Your task to perform on an android device: add a contact in the contacts app Image 0: 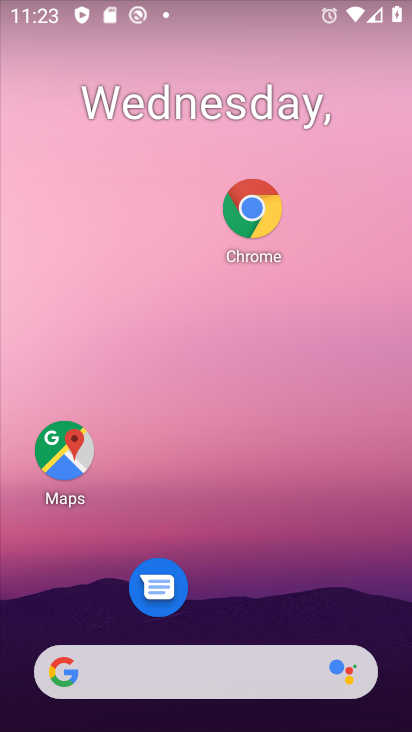
Step 0: drag from (231, 569) to (258, 27)
Your task to perform on an android device: add a contact in the contacts app Image 1: 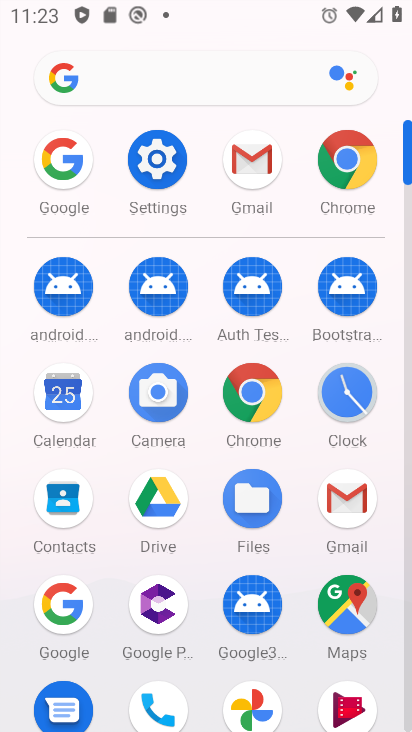
Step 1: click (57, 530)
Your task to perform on an android device: add a contact in the contacts app Image 2: 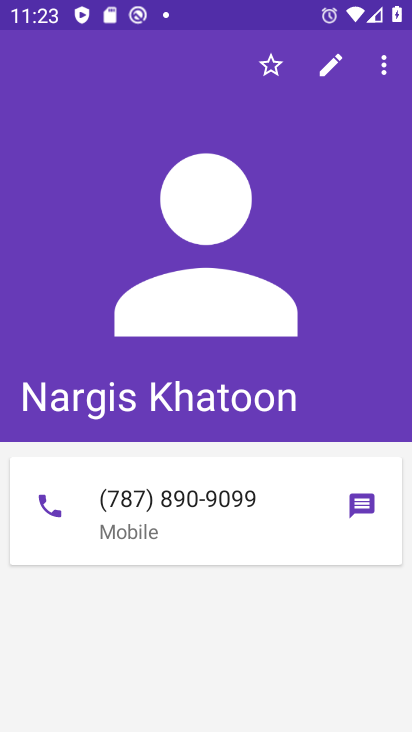
Step 2: press back button
Your task to perform on an android device: add a contact in the contacts app Image 3: 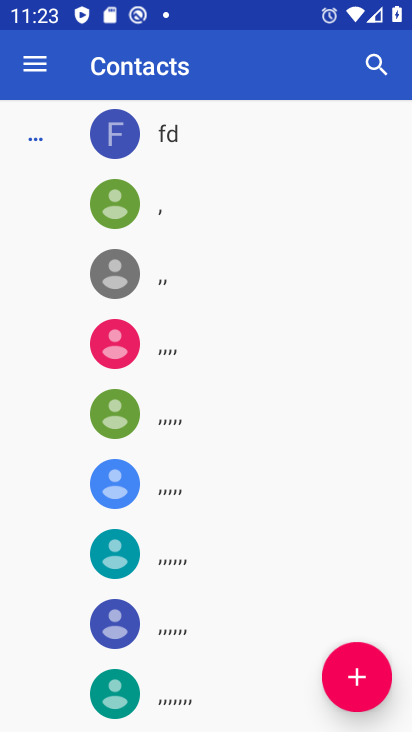
Step 3: click (367, 704)
Your task to perform on an android device: add a contact in the contacts app Image 4: 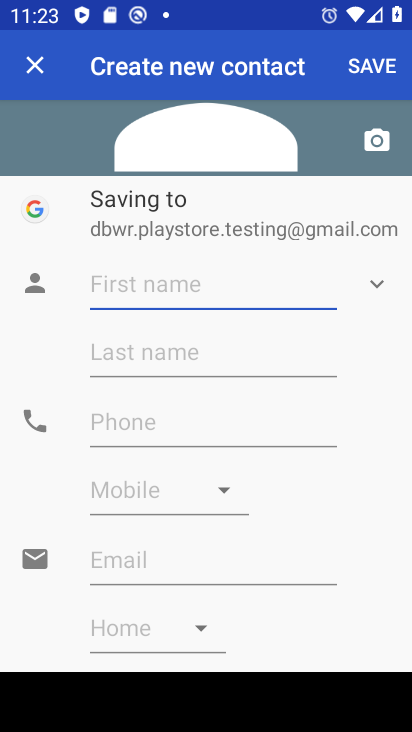
Step 4: click (150, 280)
Your task to perform on an android device: add a contact in the contacts app Image 5: 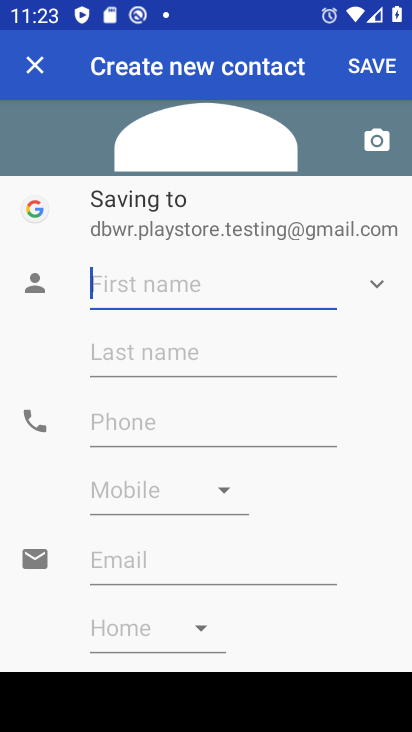
Step 5: type "Raghav"
Your task to perform on an android device: add a contact in the contacts app Image 6: 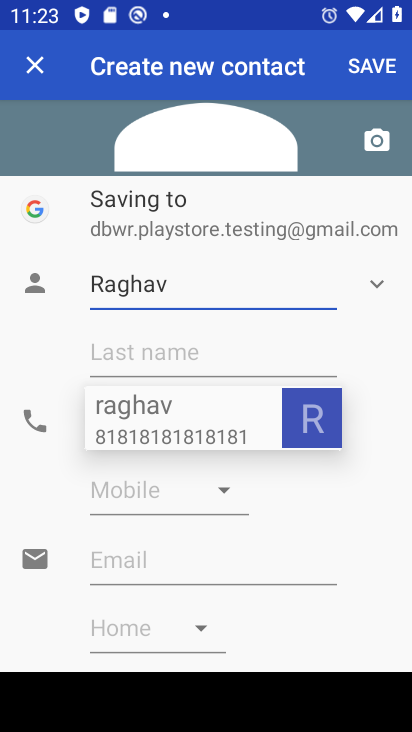
Step 6: click (180, 347)
Your task to perform on an android device: add a contact in the contacts app Image 7: 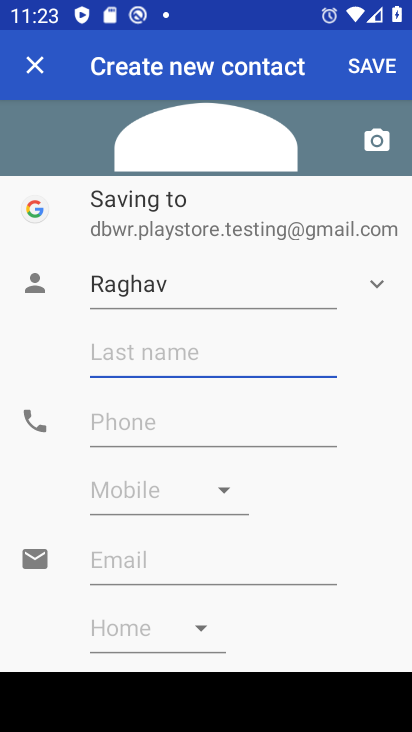
Step 7: type "Bhai"
Your task to perform on an android device: add a contact in the contacts app Image 8: 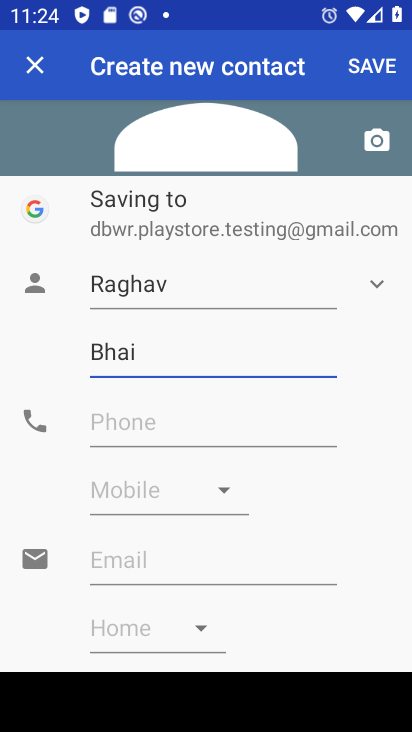
Step 8: click (225, 425)
Your task to perform on an android device: add a contact in the contacts app Image 9: 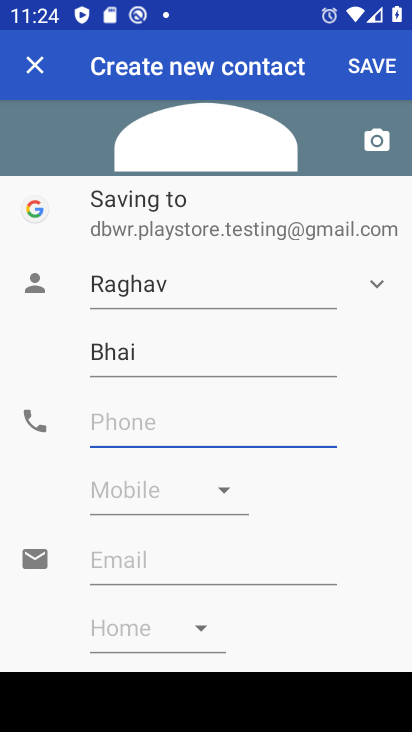
Step 9: type "7578757890"
Your task to perform on an android device: add a contact in the contacts app Image 10: 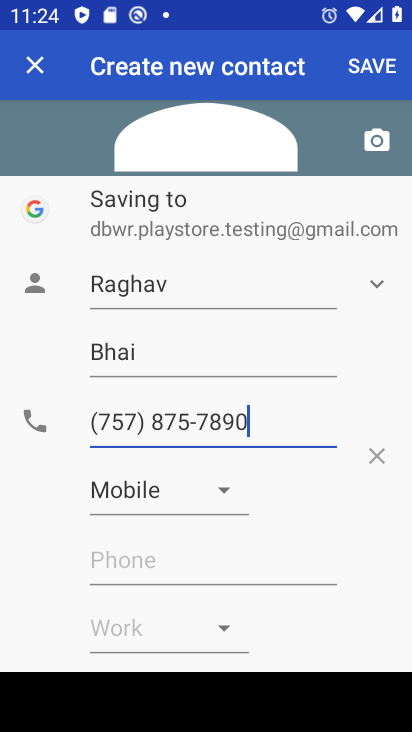
Step 10: click (369, 66)
Your task to perform on an android device: add a contact in the contacts app Image 11: 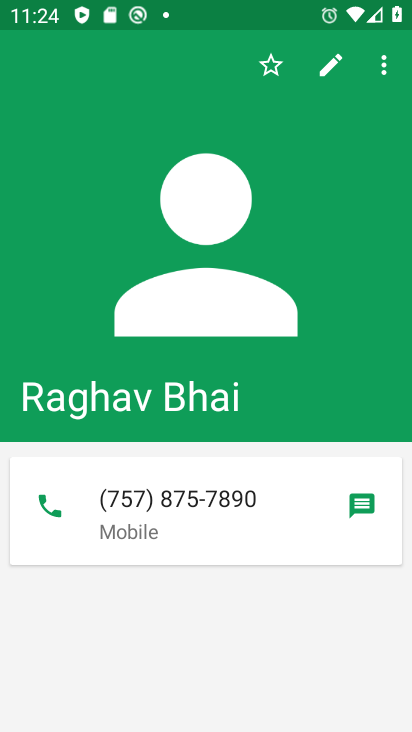
Step 11: task complete